Your task to perform on an android device: Open the stopwatch Image 0: 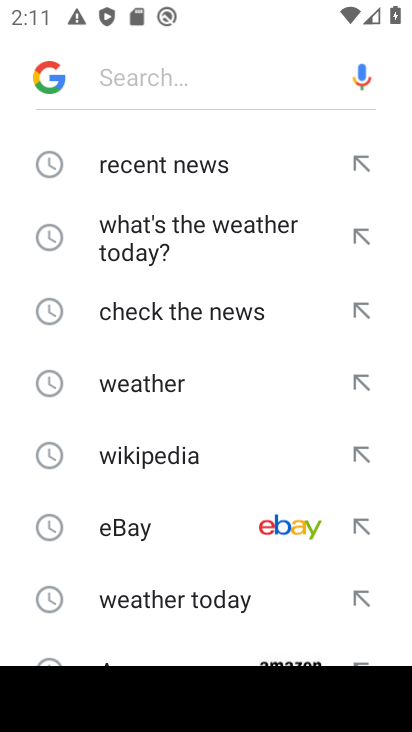
Step 0: press back button
Your task to perform on an android device: Open the stopwatch Image 1: 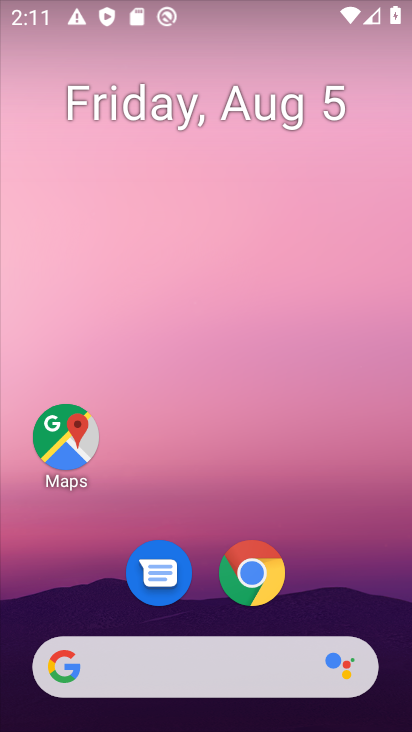
Step 1: drag from (383, 636) to (268, 111)
Your task to perform on an android device: Open the stopwatch Image 2: 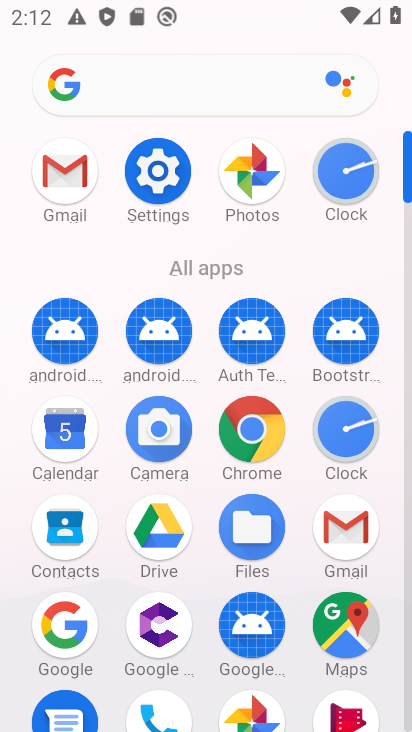
Step 2: click (355, 174)
Your task to perform on an android device: Open the stopwatch Image 3: 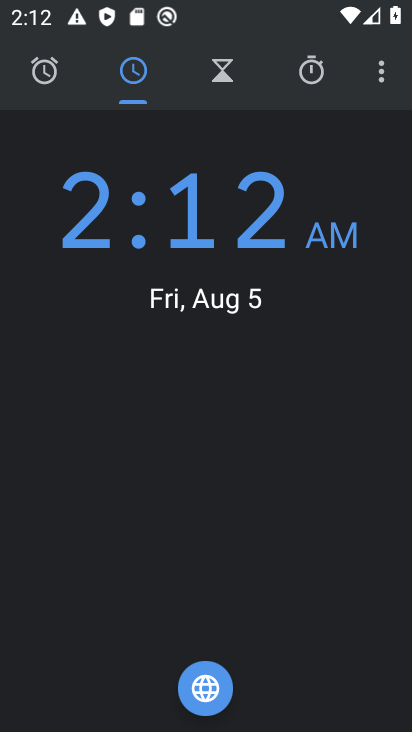
Step 3: click (314, 76)
Your task to perform on an android device: Open the stopwatch Image 4: 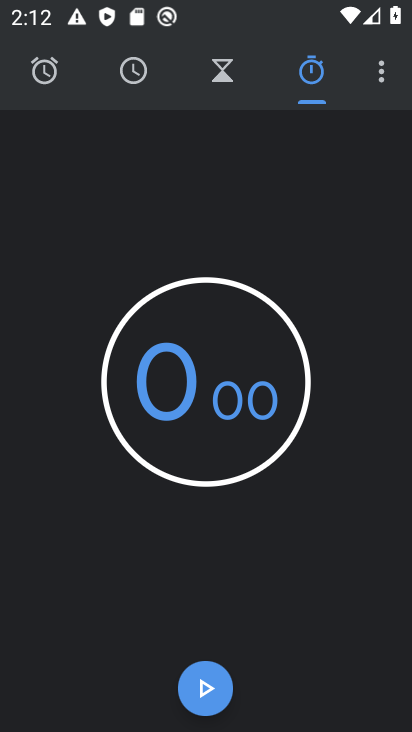
Step 4: task complete